Your task to perform on an android device: stop showing notifications on the lock screen Image 0: 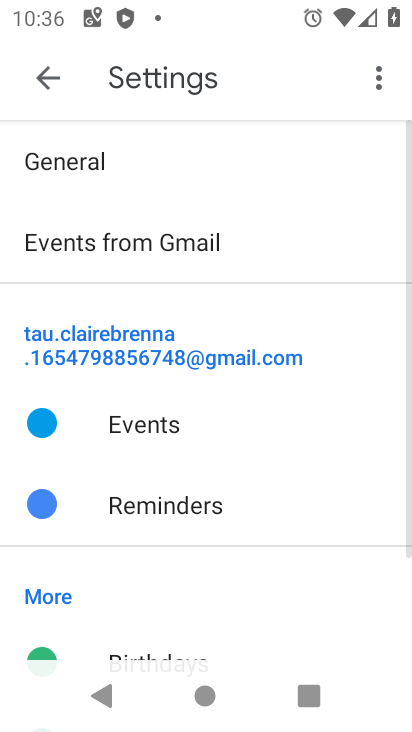
Step 0: press home button
Your task to perform on an android device: stop showing notifications on the lock screen Image 1: 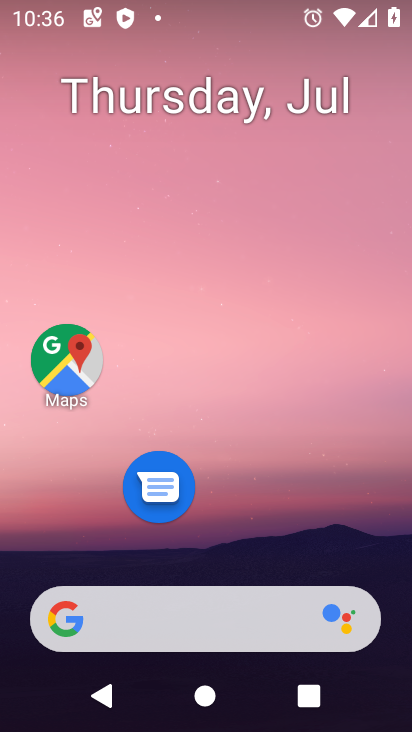
Step 1: drag from (217, 612) to (257, 98)
Your task to perform on an android device: stop showing notifications on the lock screen Image 2: 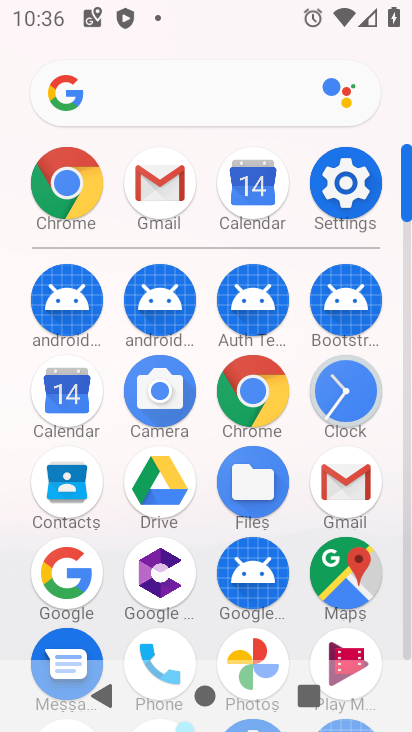
Step 2: drag from (215, 481) to (197, 381)
Your task to perform on an android device: stop showing notifications on the lock screen Image 3: 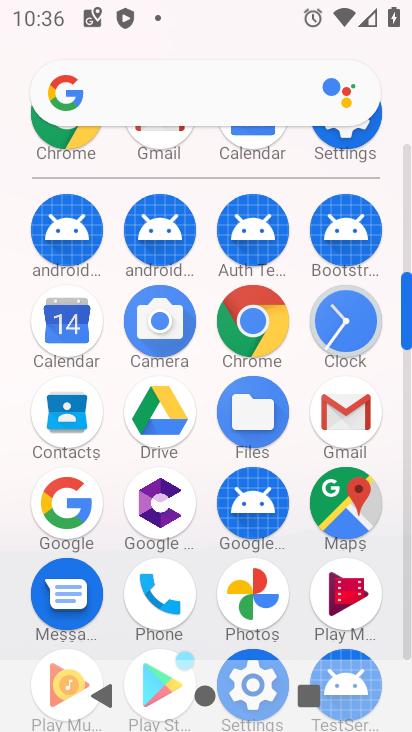
Step 3: drag from (180, 489) to (182, 272)
Your task to perform on an android device: stop showing notifications on the lock screen Image 4: 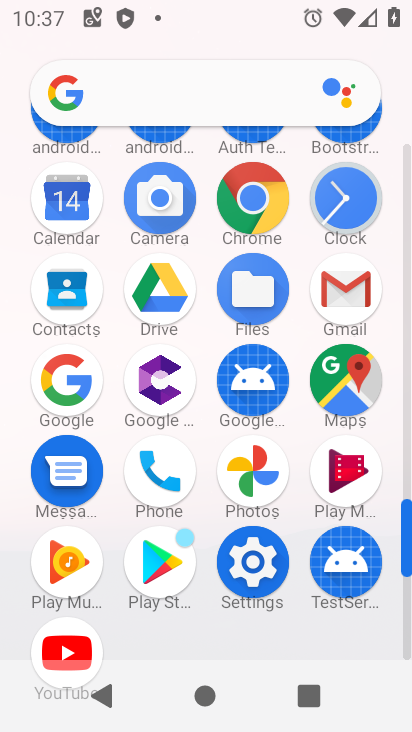
Step 4: click (270, 567)
Your task to perform on an android device: stop showing notifications on the lock screen Image 5: 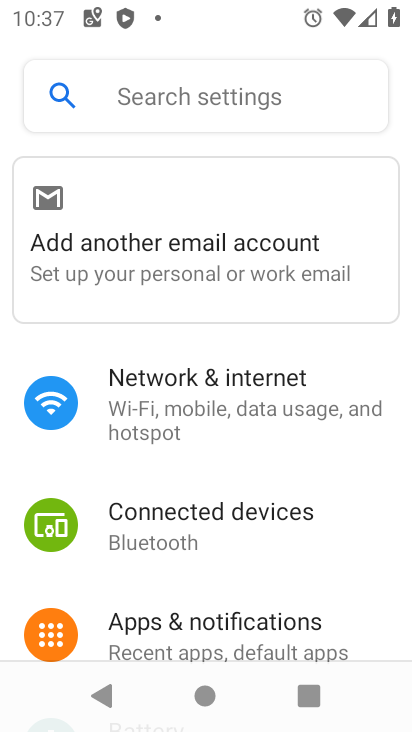
Step 5: click (260, 646)
Your task to perform on an android device: stop showing notifications on the lock screen Image 6: 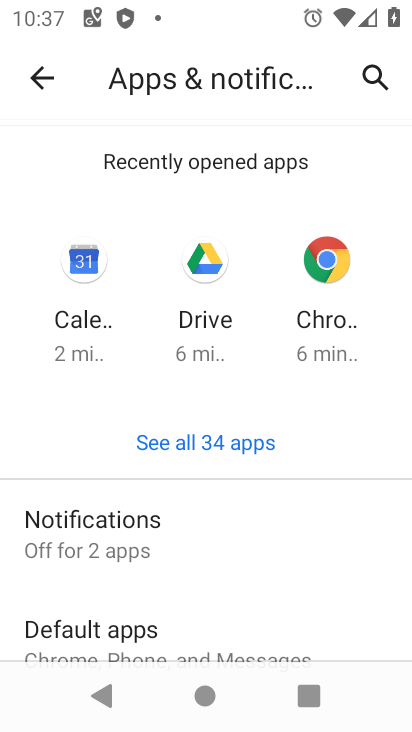
Step 6: click (147, 527)
Your task to perform on an android device: stop showing notifications on the lock screen Image 7: 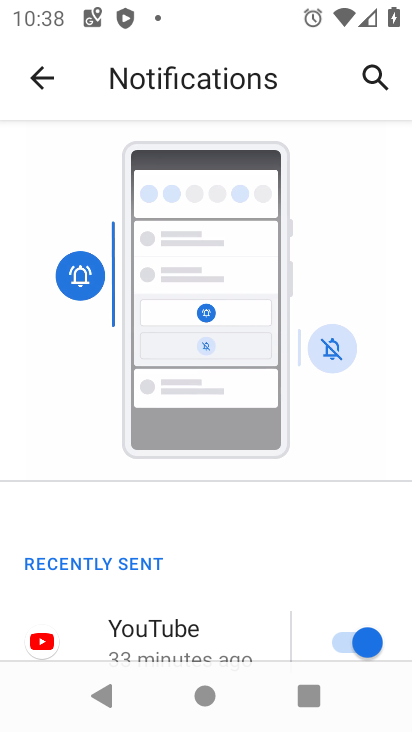
Step 7: drag from (216, 573) to (210, 114)
Your task to perform on an android device: stop showing notifications on the lock screen Image 8: 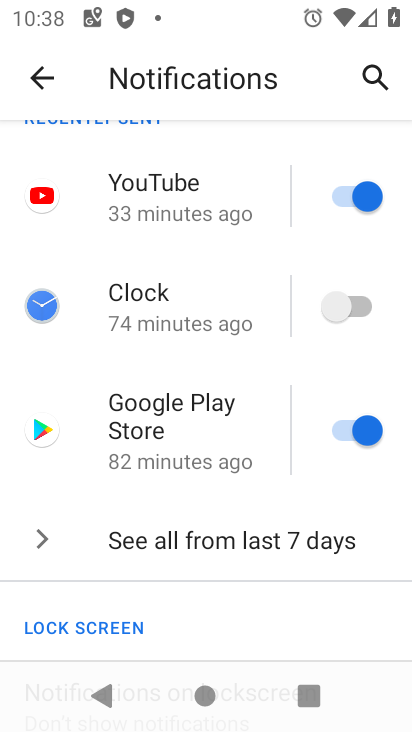
Step 8: drag from (195, 521) to (206, 241)
Your task to perform on an android device: stop showing notifications on the lock screen Image 9: 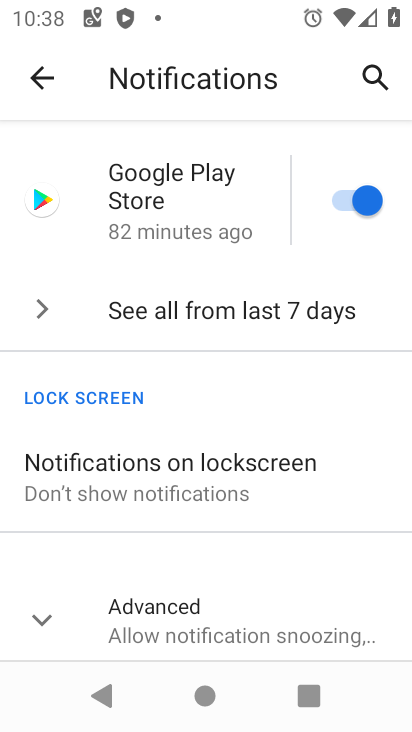
Step 9: click (179, 486)
Your task to perform on an android device: stop showing notifications on the lock screen Image 10: 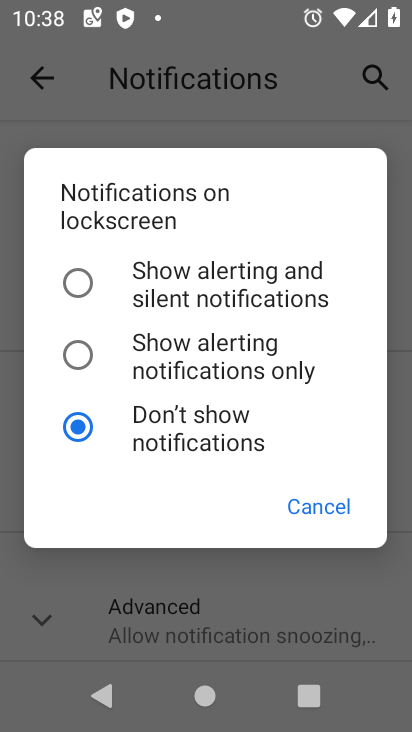
Step 10: task complete